Your task to perform on an android device: toggle notification dots Image 0: 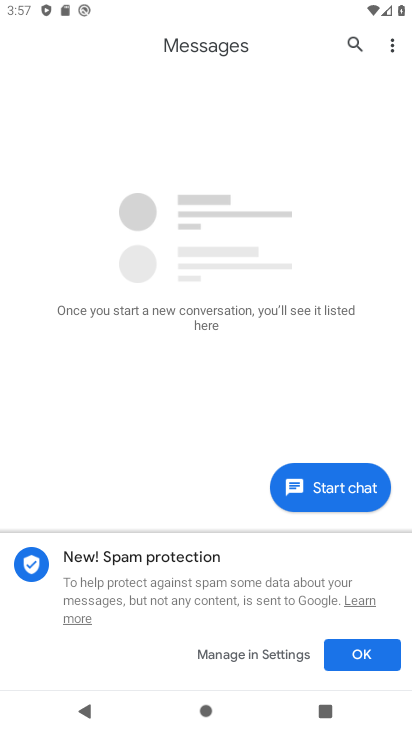
Step 0: press home button
Your task to perform on an android device: toggle notification dots Image 1: 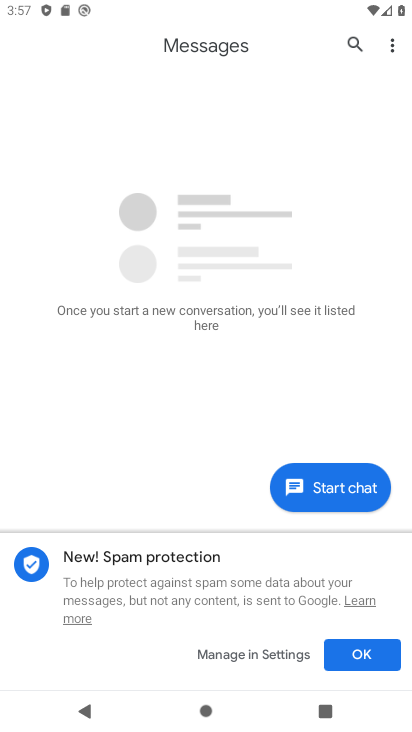
Step 1: press home button
Your task to perform on an android device: toggle notification dots Image 2: 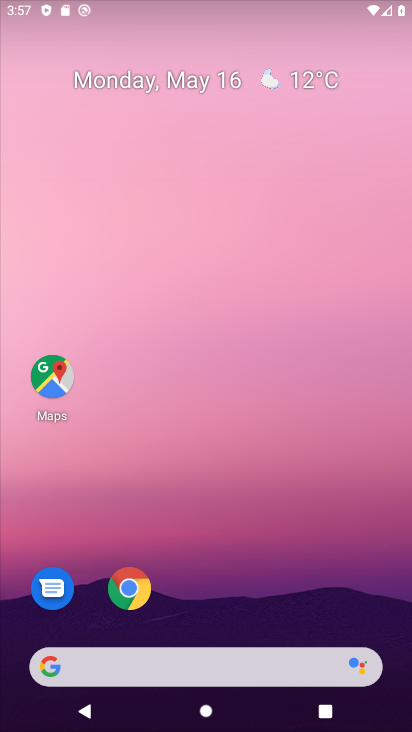
Step 2: press home button
Your task to perform on an android device: toggle notification dots Image 3: 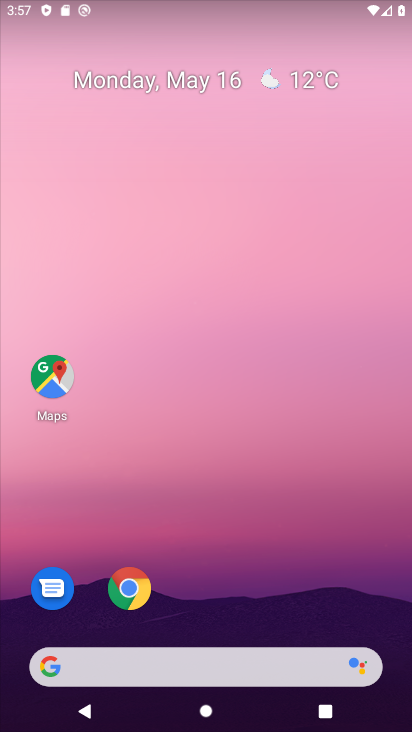
Step 3: drag from (214, 544) to (217, 154)
Your task to perform on an android device: toggle notification dots Image 4: 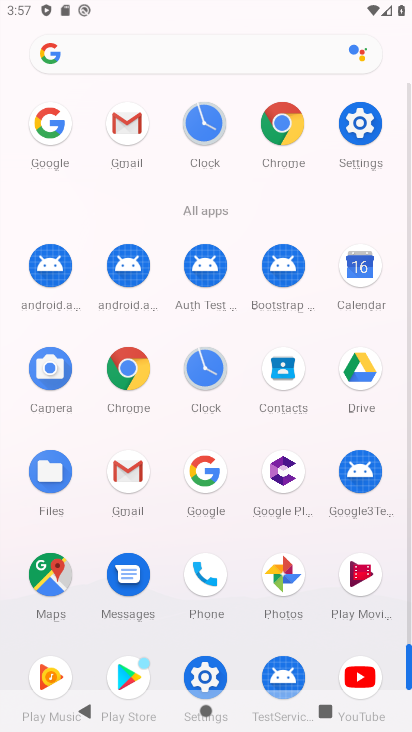
Step 4: click (357, 123)
Your task to perform on an android device: toggle notification dots Image 5: 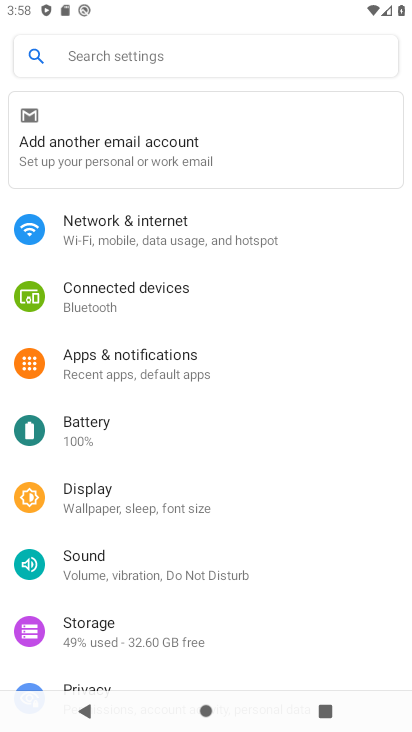
Step 5: click (95, 381)
Your task to perform on an android device: toggle notification dots Image 6: 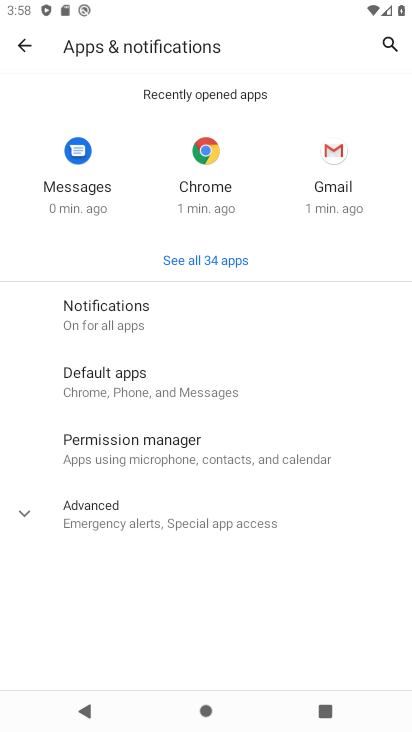
Step 6: click (163, 315)
Your task to perform on an android device: toggle notification dots Image 7: 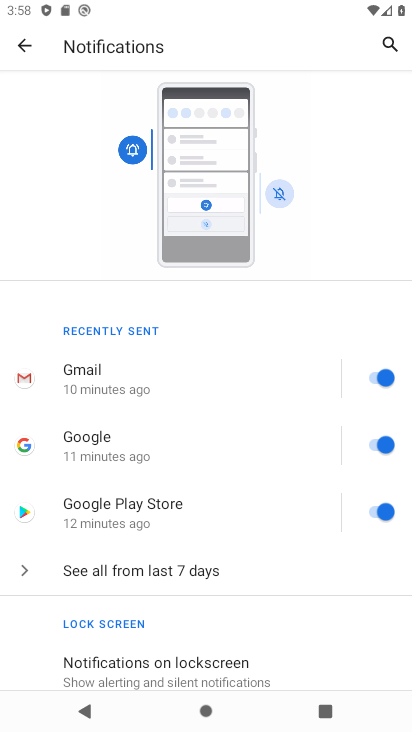
Step 7: drag from (243, 649) to (289, 343)
Your task to perform on an android device: toggle notification dots Image 8: 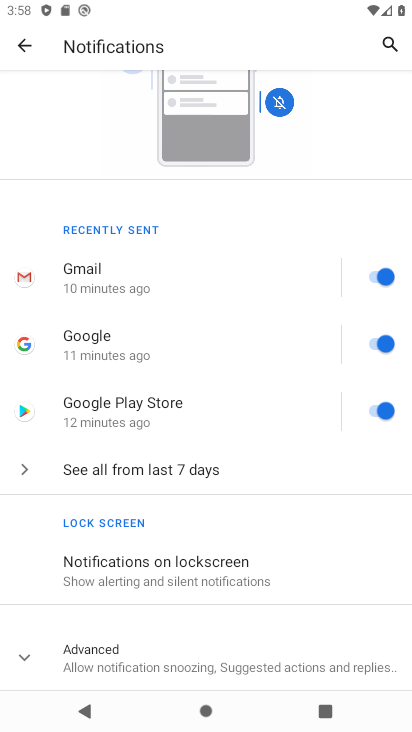
Step 8: drag from (241, 639) to (236, 422)
Your task to perform on an android device: toggle notification dots Image 9: 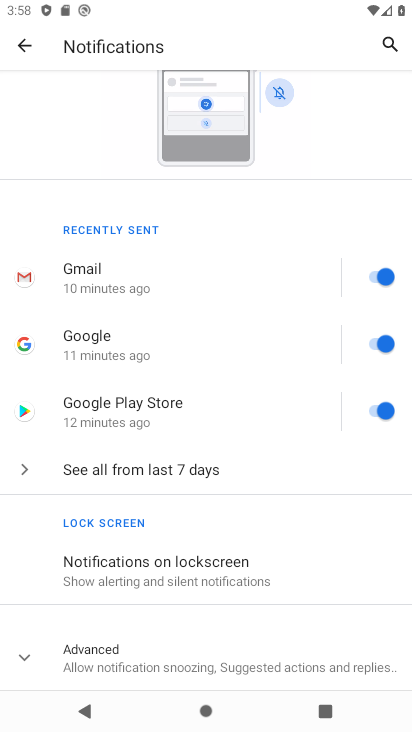
Step 9: click (52, 673)
Your task to perform on an android device: toggle notification dots Image 10: 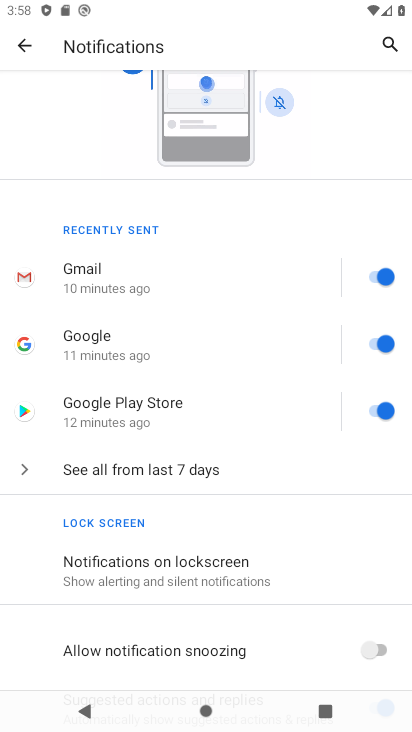
Step 10: drag from (304, 654) to (298, 407)
Your task to perform on an android device: toggle notification dots Image 11: 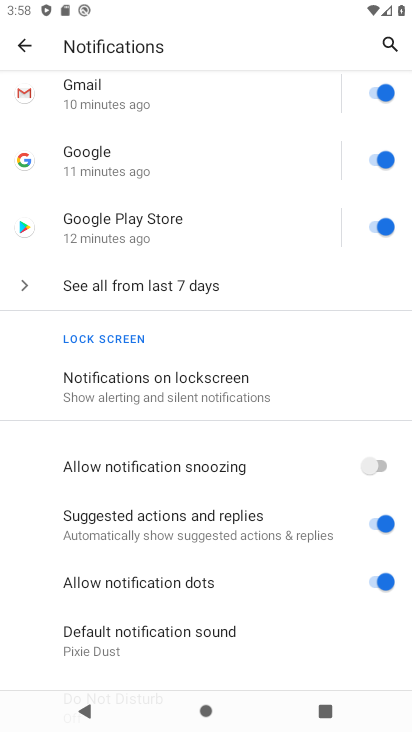
Step 11: drag from (259, 453) to (259, 371)
Your task to perform on an android device: toggle notification dots Image 12: 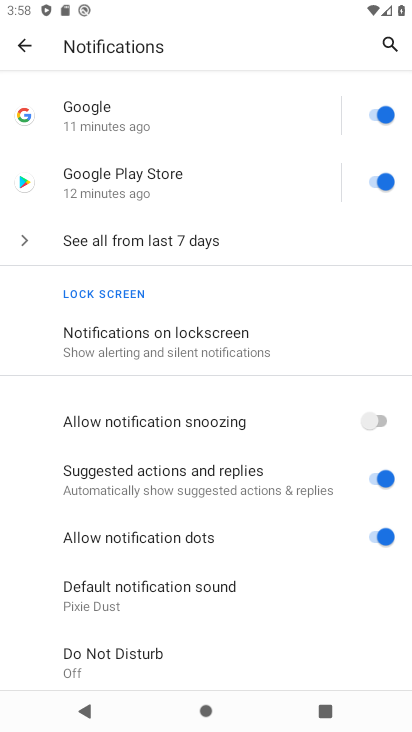
Step 12: click (293, 527)
Your task to perform on an android device: toggle notification dots Image 13: 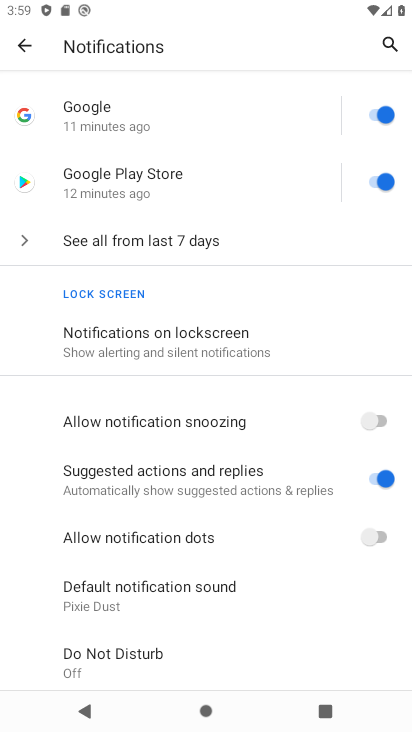
Step 13: task complete